Your task to perform on an android device: turn on javascript in the chrome app Image 0: 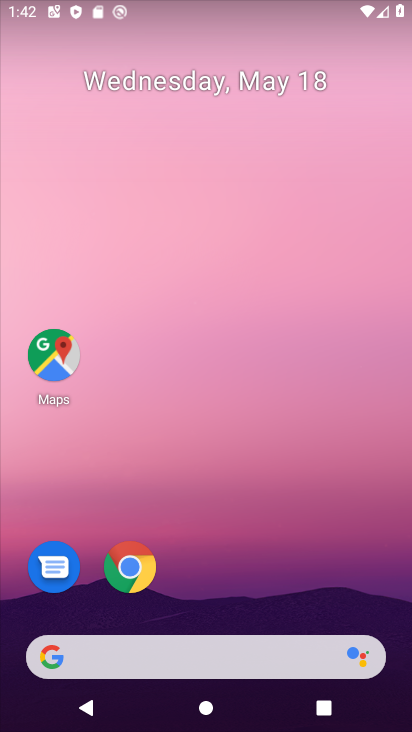
Step 0: click (132, 558)
Your task to perform on an android device: turn on javascript in the chrome app Image 1: 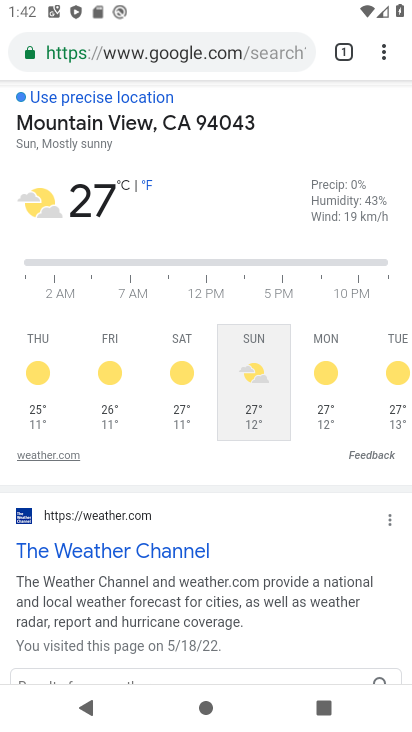
Step 1: drag from (389, 44) to (212, 574)
Your task to perform on an android device: turn on javascript in the chrome app Image 2: 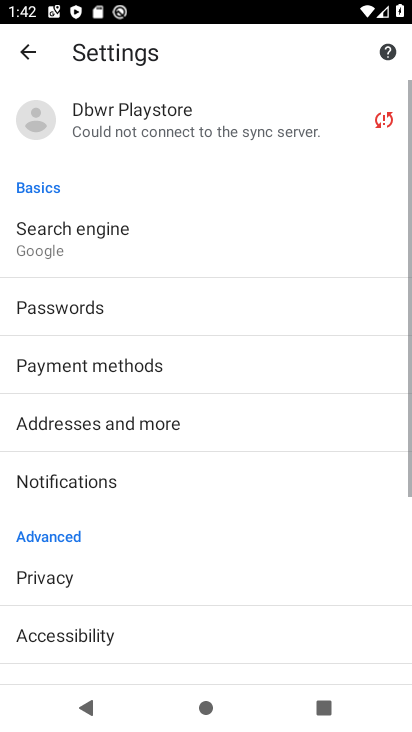
Step 2: drag from (212, 553) to (336, 155)
Your task to perform on an android device: turn on javascript in the chrome app Image 3: 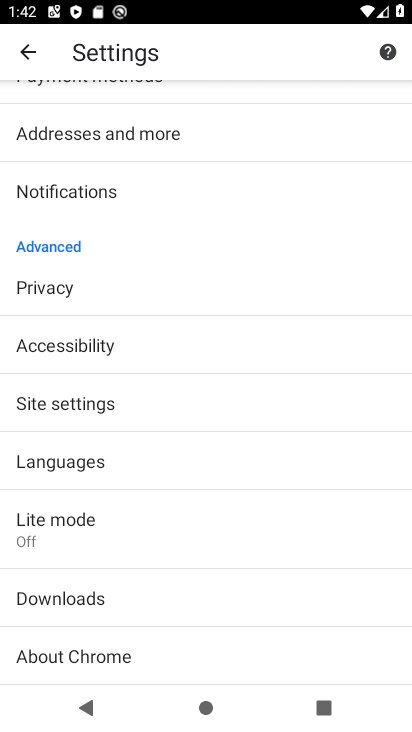
Step 3: click (115, 400)
Your task to perform on an android device: turn on javascript in the chrome app Image 4: 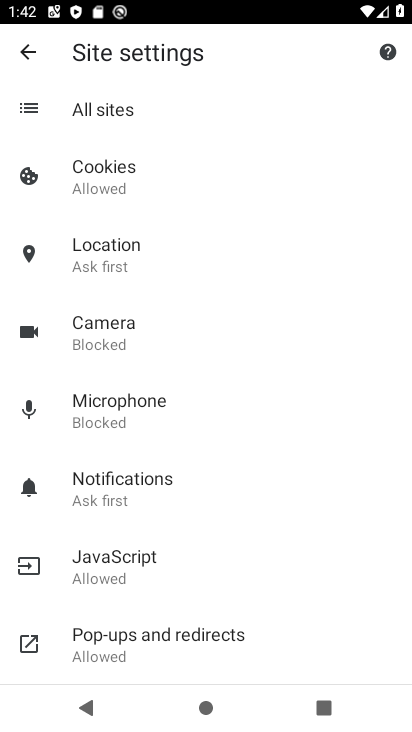
Step 4: click (144, 564)
Your task to perform on an android device: turn on javascript in the chrome app Image 5: 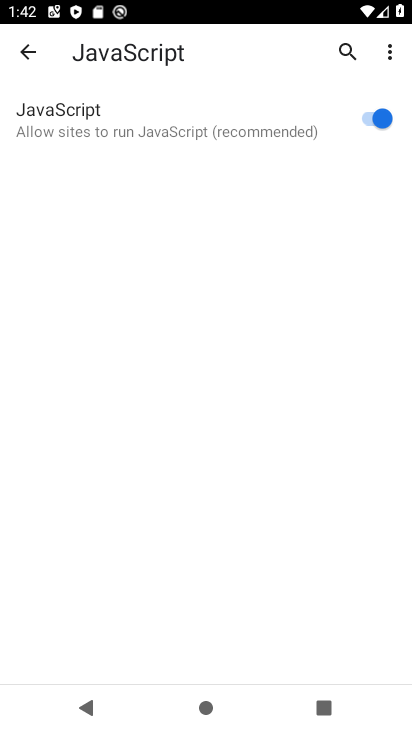
Step 5: task complete